Your task to perform on an android device: check data usage Image 0: 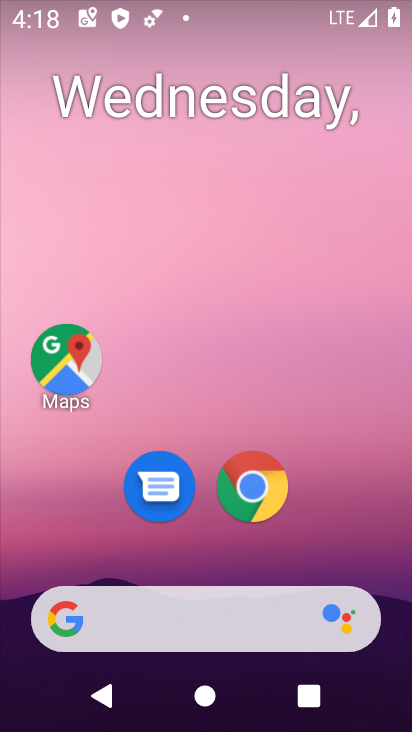
Step 0: drag from (198, 589) to (232, 191)
Your task to perform on an android device: check data usage Image 1: 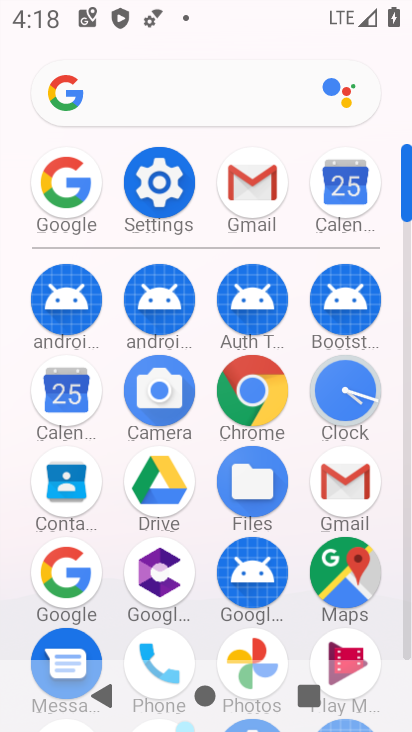
Step 1: click (169, 187)
Your task to perform on an android device: check data usage Image 2: 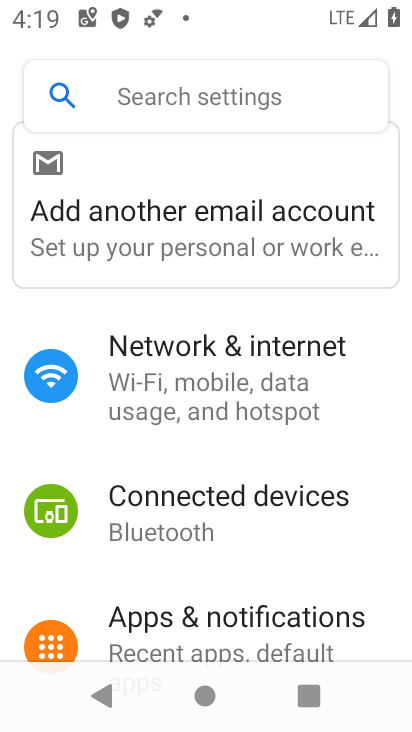
Step 2: click (207, 377)
Your task to perform on an android device: check data usage Image 3: 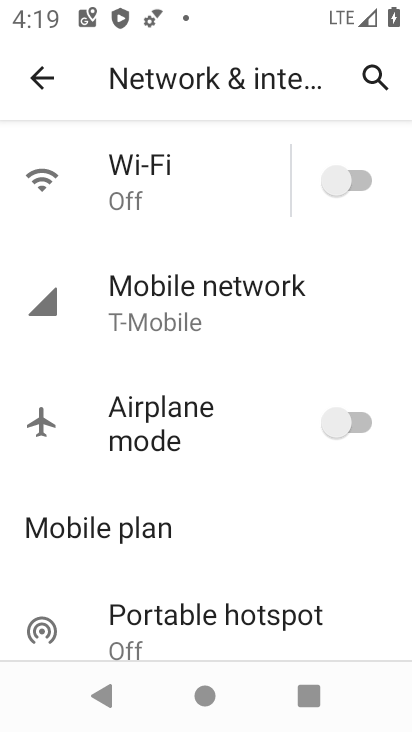
Step 3: click (174, 284)
Your task to perform on an android device: check data usage Image 4: 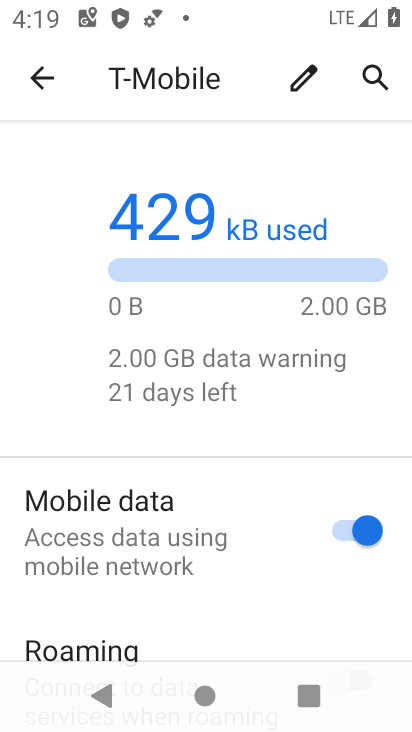
Step 4: task complete